Your task to perform on an android device: find snoozed emails in the gmail app Image 0: 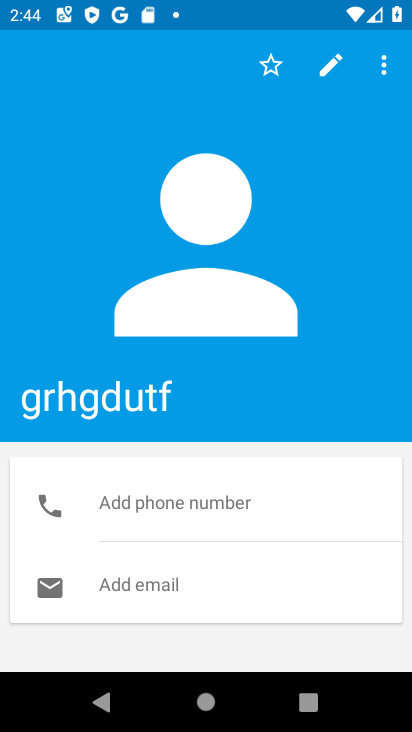
Step 0: press home button
Your task to perform on an android device: find snoozed emails in the gmail app Image 1: 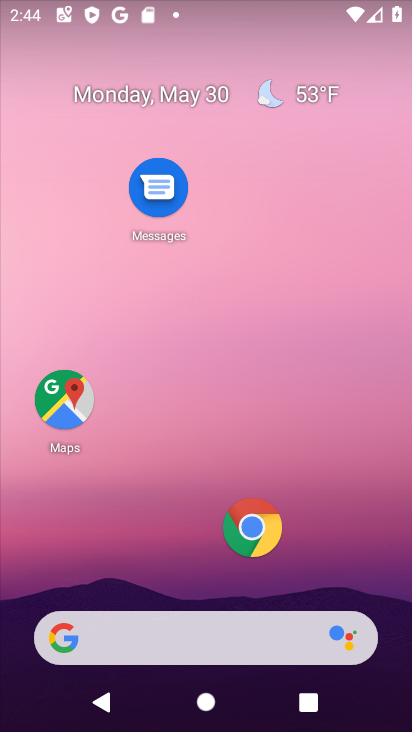
Step 1: drag from (203, 559) to (333, 130)
Your task to perform on an android device: find snoozed emails in the gmail app Image 2: 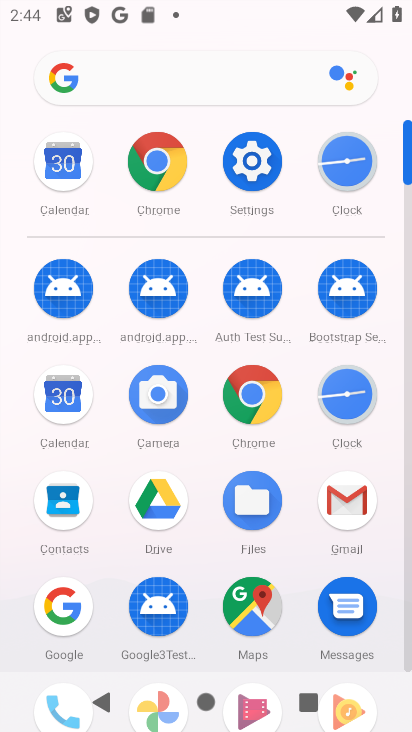
Step 2: click (336, 518)
Your task to perform on an android device: find snoozed emails in the gmail app Image 3: 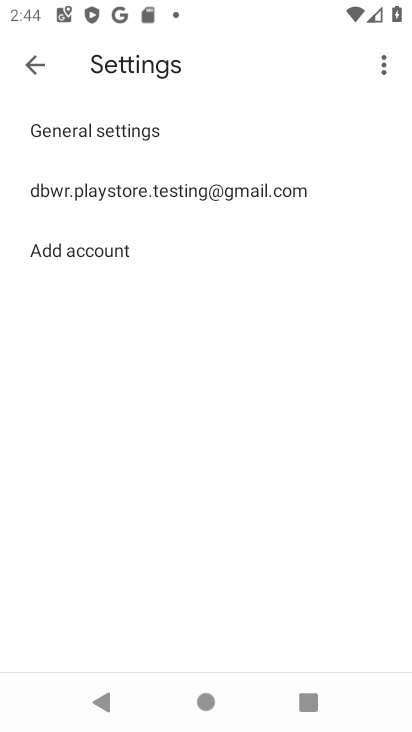
Step 3: click (290, 461)
Your task to perform on an android device: find snoozed emails in the gmail app Image 4: 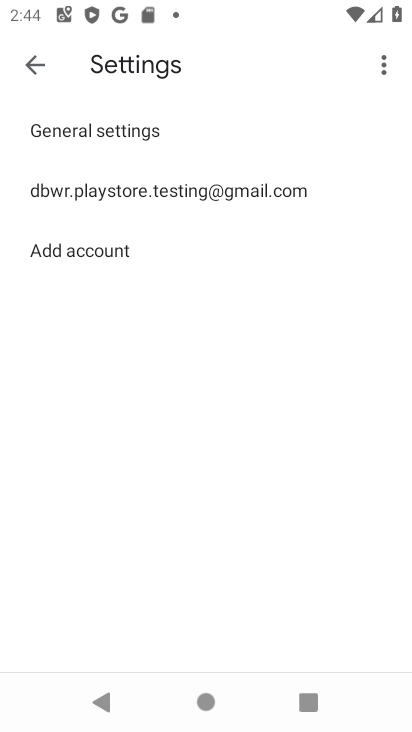
Step 4: press back button
Your task to perform on an android device: find snoozed emails in the gmail app Image 5: 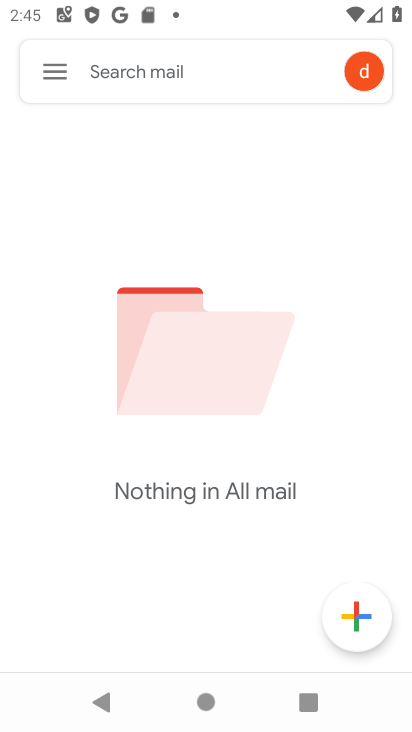
Step 5: click (62, 79)
Your task to perform on an android device: find snoozed emails in the gmail app Image 6: 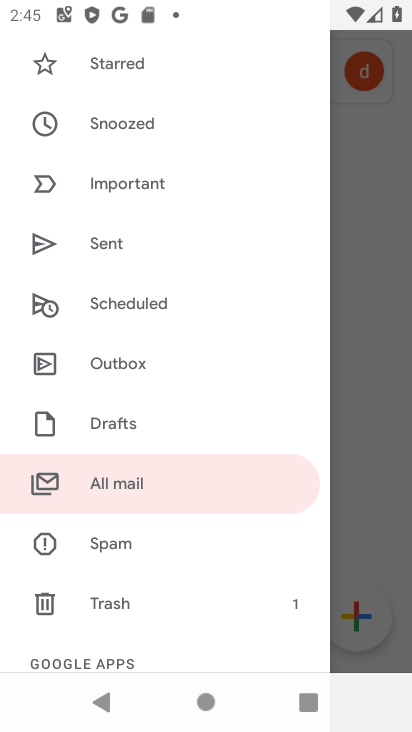
Step 6: click (167, 137)
Your task to perform on an android device: find snoozed emails in the gmail app Image 7: 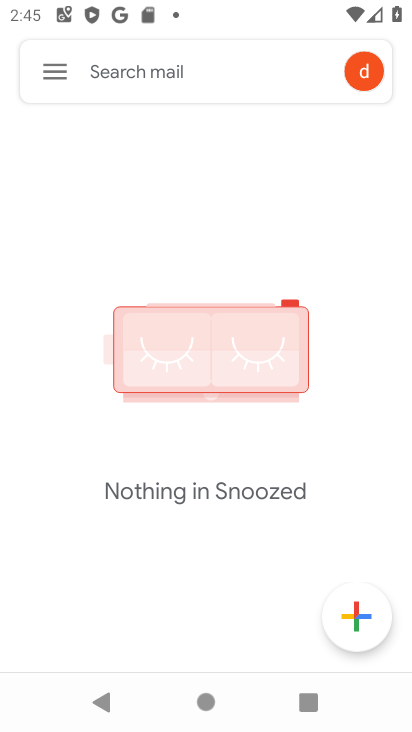
Step 7: task complete